Your task to perform on an android device: turn off picture-in-picture Image 0: 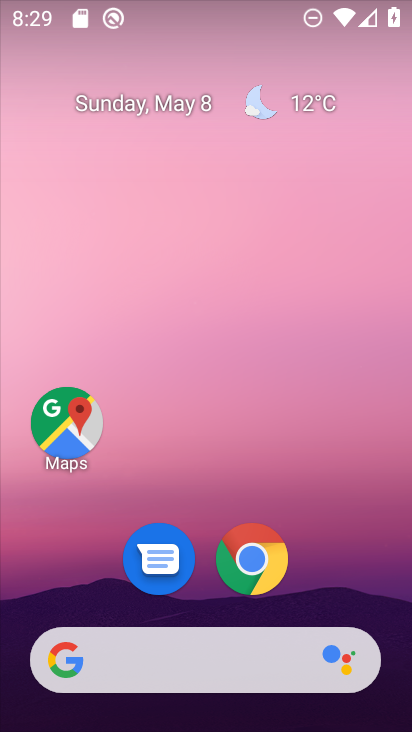
Step 0: click (253, 566)
Your task to perform on an android device: turn off picture-in-picture Image 1: 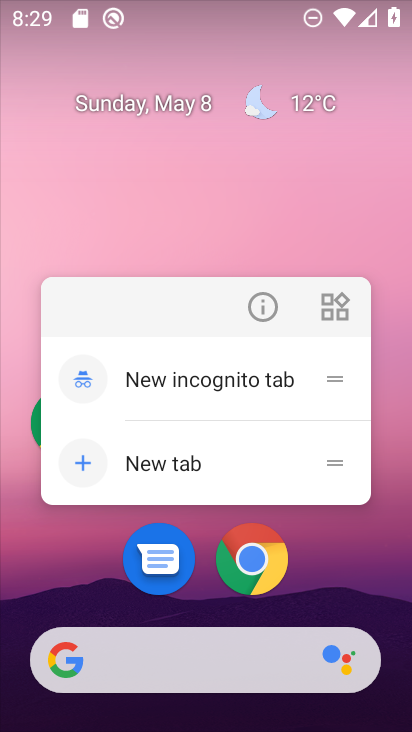
Step 1: click (270, 319)
Your task to perform on an android device: turn off picture-in-picture Image 2: 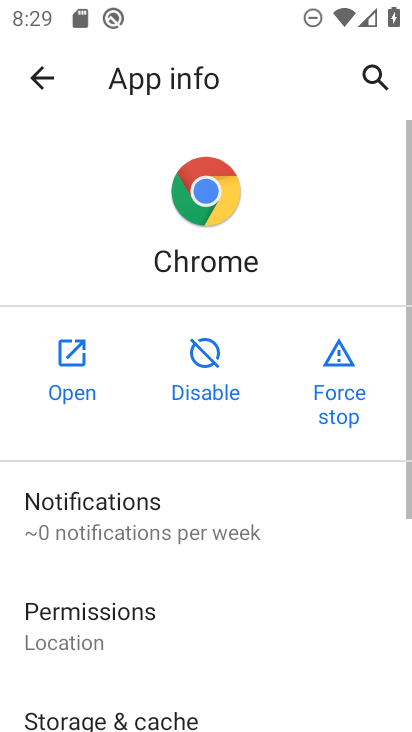
Step 2: drag from (249, 593) to (291, 93)
Your task to perform on an android device: turn off picture-in-picture Image 3: 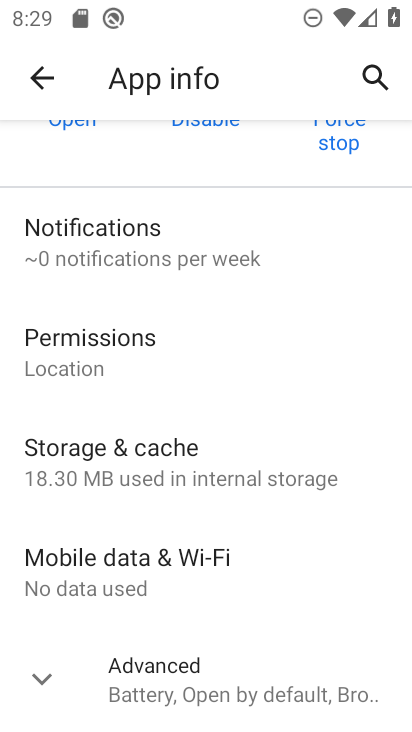
Step 3: click (25, 696)
Your task to perform on an android device: turn off picture-in-picture Image 4: 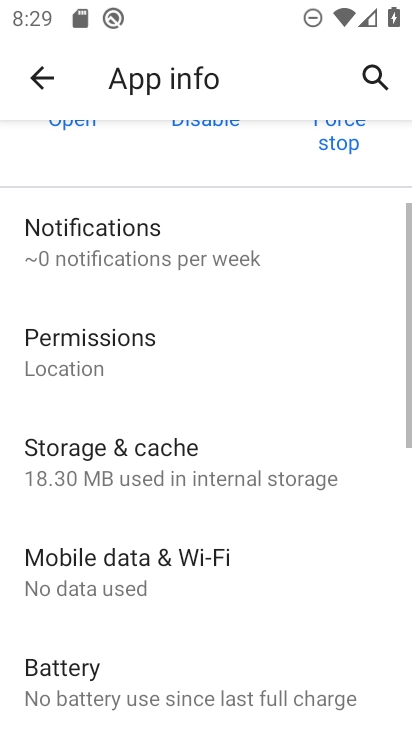
Step 4: drag from (151, 672) to (266, 112)
Your task to perform on an android device: turn off picture-in-picture Image 5: 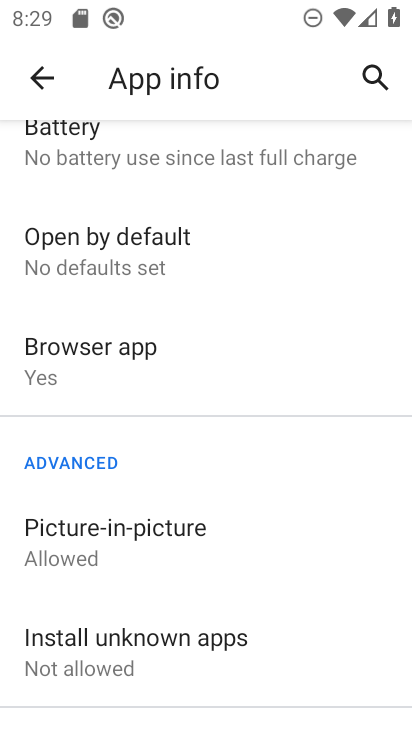
Step 5: click (115, 534)
Your task to perform on an android device: turn off picture-in-picture Image 6: 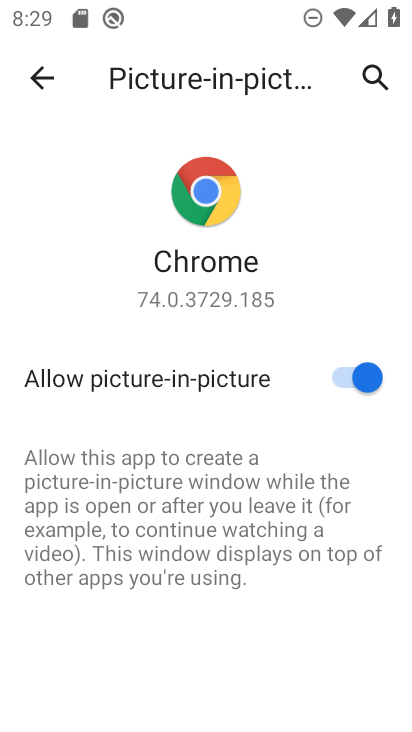
Step 6: click (360, 383)
Your task to perform on an android device: turn off picture-in-picture Image 7: 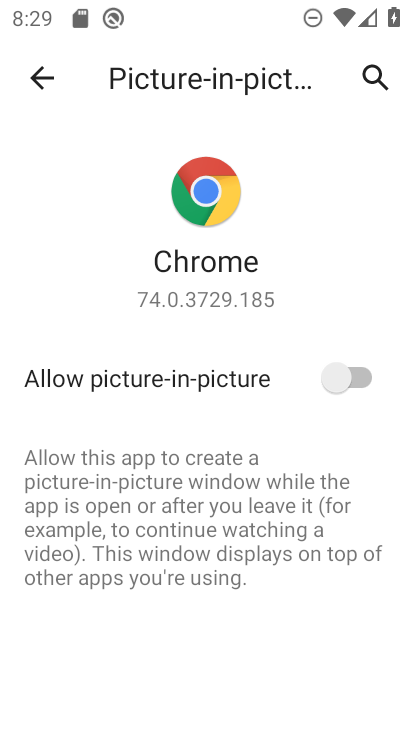
Step 7: task complete